Your task to perform on an android device: stop showing notifications on the lock screen Image 0: 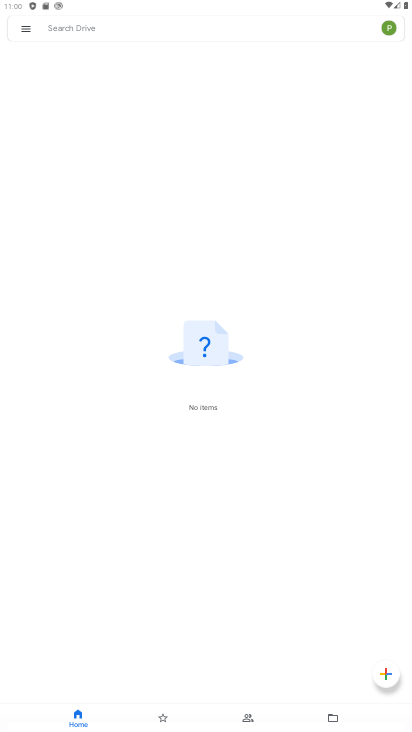
Step 0: press home button
Your task to perform on an android device: stop showing notifications on the lock screen Image 1: 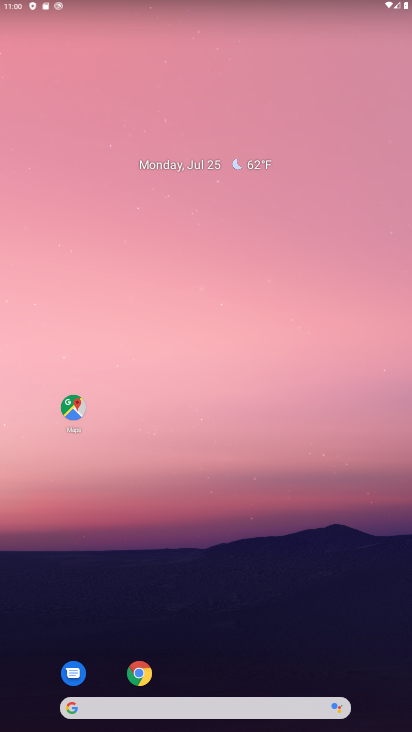
Step 1: drag from (252, 646) to (250, 136)
Your task to perform on an android device: stop showing notifications on the lock screen Image 2: 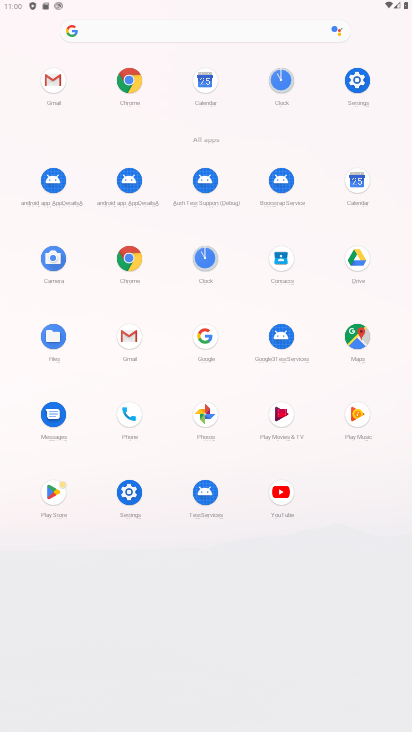
Step 2: click (130, 494)
Your task to perform on an android device: stop showing notifications on the lock screen Image 3: 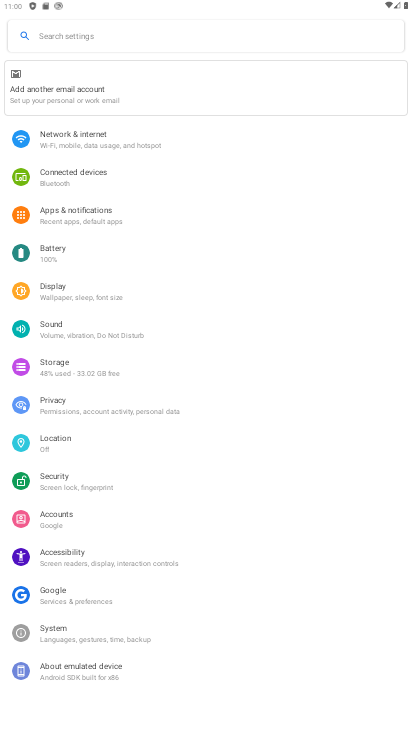
Step 3: click (83, 219)
Your task to perform on an android device: stop showing notifications on the lock screen Image 4: 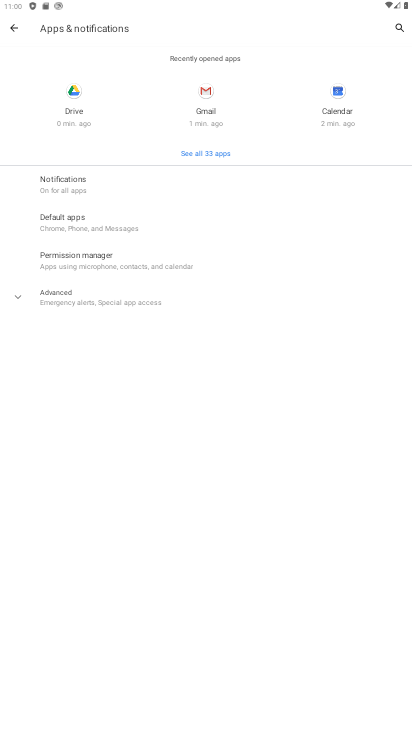
Step 4: click (81, 188)
Your task to perform on an android device: stop showing notifications on the lock screen Image 5: 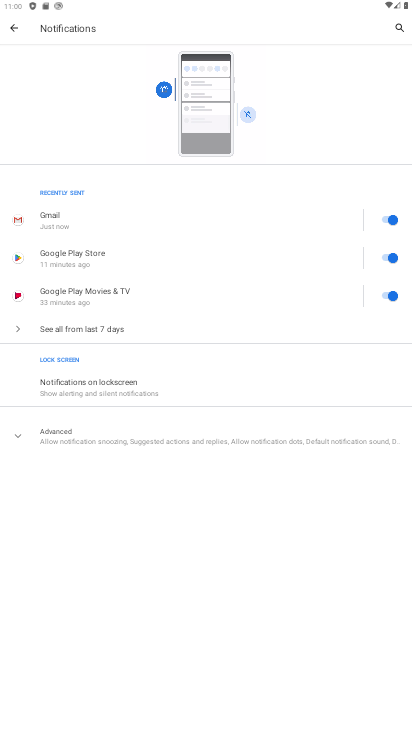
Step 5: click (99, 383)
Your task to perform on an android device: stop showing notifications on the lock screen Image 6: 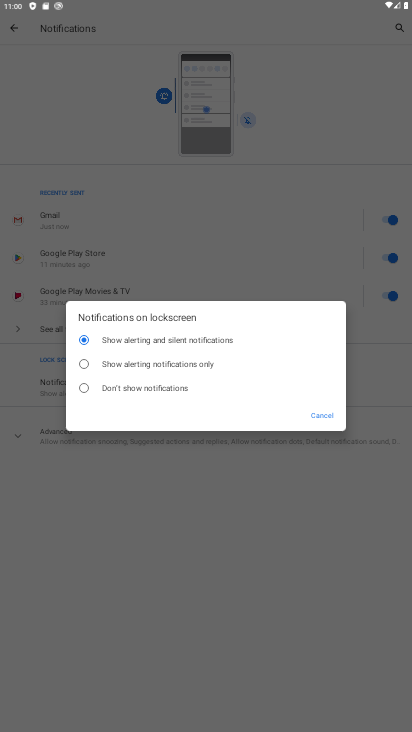
Step 6: click (108, 385)
Your task to perform on an android device: stop showing notifications on the lock screen Image 7: 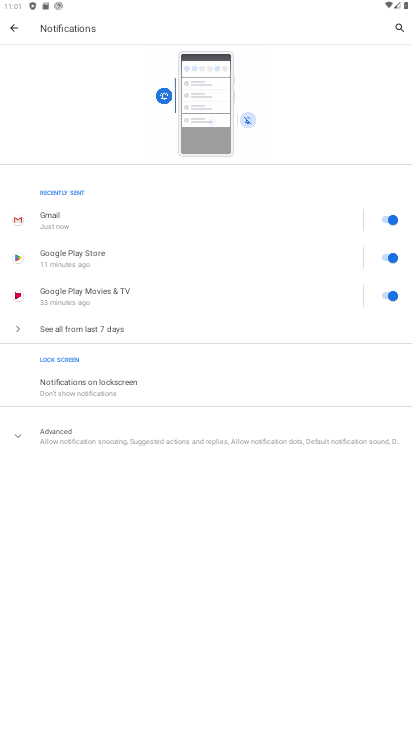
Step 7: task complete